Your task to perform on an android device: create a new album in the google photos Image 0: 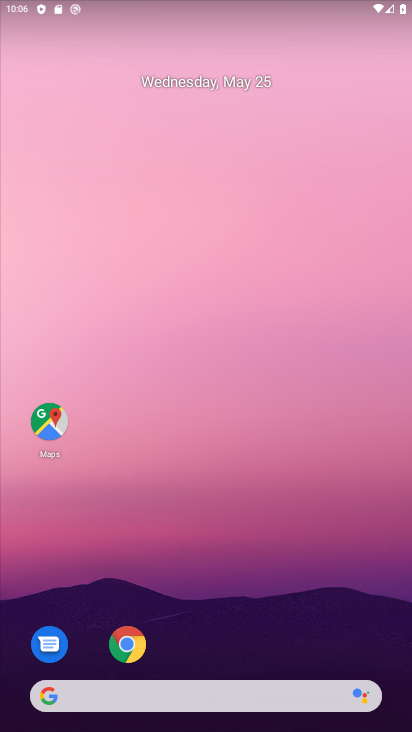
Step 0: drag from (230, 617) to (302, 113)
Your task to perform on an android device: create a new album in the google photos Image 1: 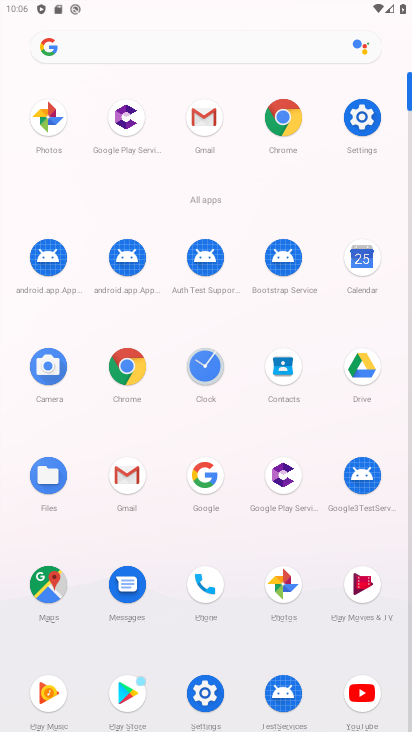
Step 1: click (42, 117)
Your task to perform on an android device: create a new album in the google photos Image 2: 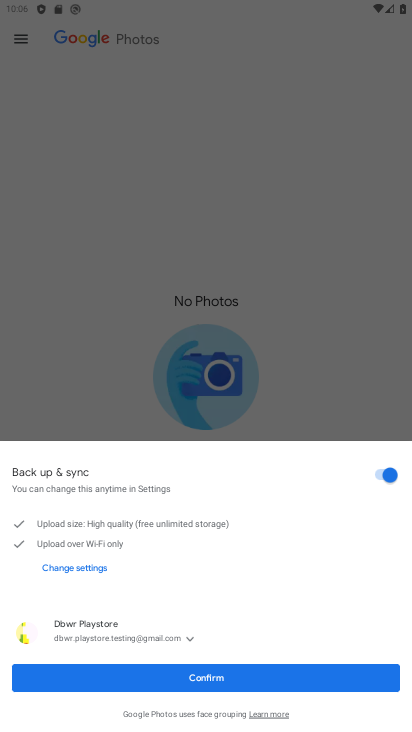
Step 2: click (223, 680)
Your task to perform on an android device: create a new album in the google photos Image 3: 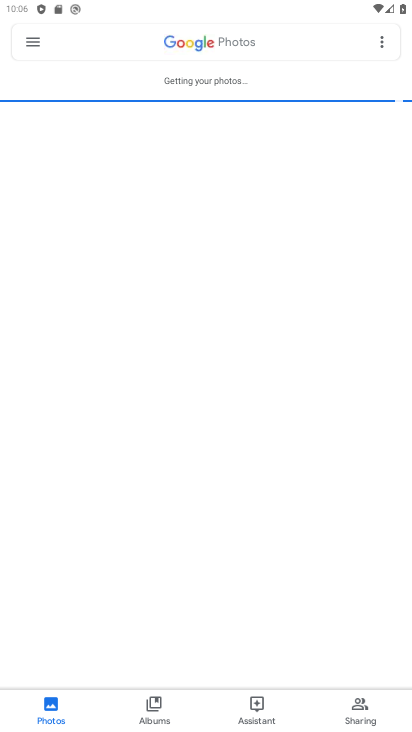
Step 3: click (148, 705)
Your task to perform on an android device: create a new album in the google photos Image 4: 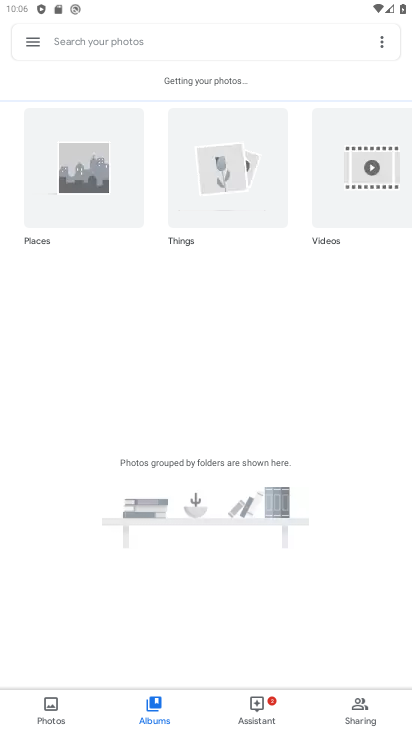
Step 4: task complete